Your task to perform on an android device: add a contact in the contacts app Image 0: 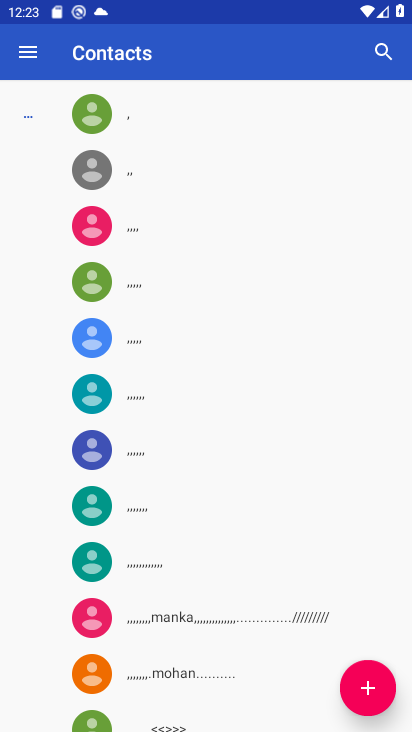
Step 0: click (350, 690)
Your task to perform on an android device: add a contact in the contacts app Image 1: 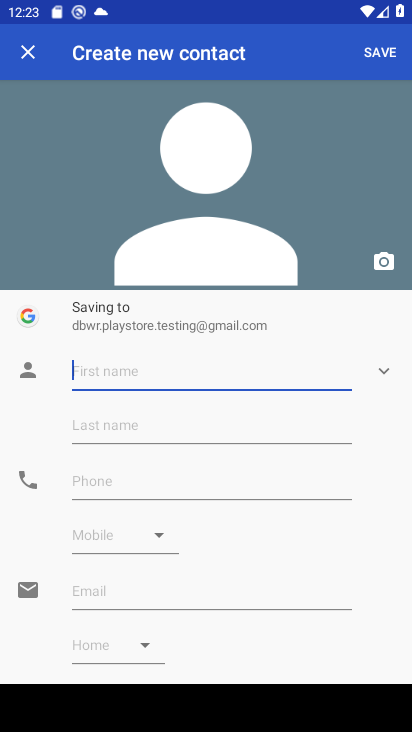
Step 1: type "sbdsjnj"
Your task to perform on an android device: add a contact in the contacts app Image 2: 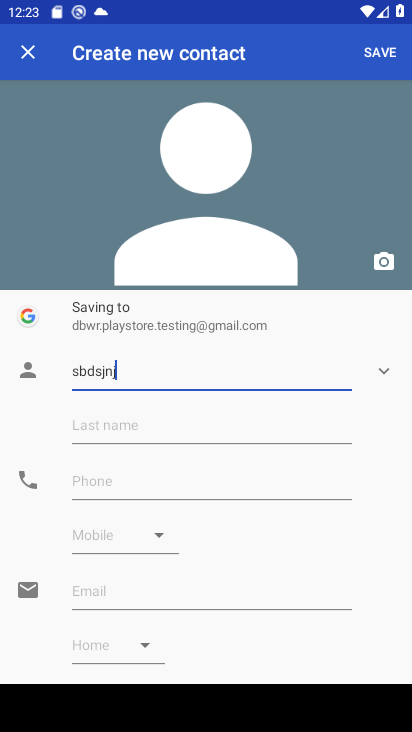
Step 2: click (171, 422)
Your task to perform on an android device: add a contact in the contacts app Image 3: 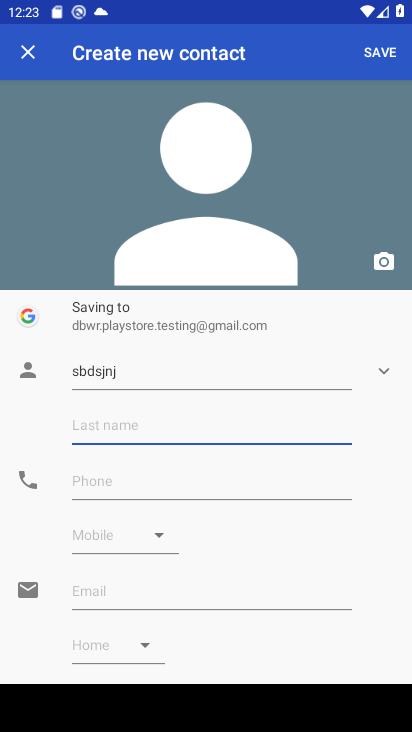
Step 3: type "ufhjkbhbhdsc"
Your task to perform on an android device: add a contact in the contacts app Image 4: 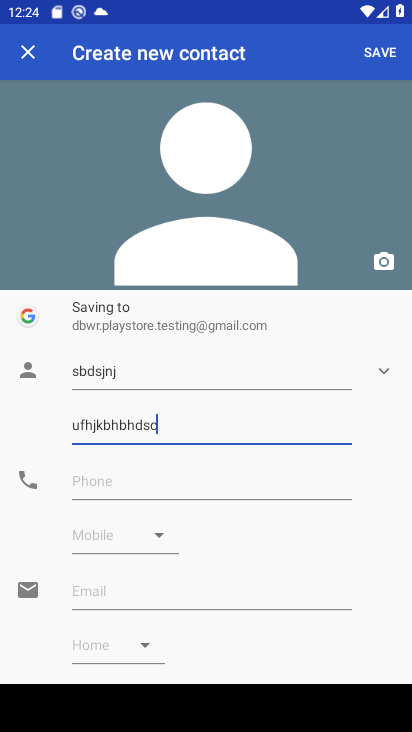
Step 4: click (71, 476)
Your task to perform on an android device: add a contact in the contacts app Image 5: 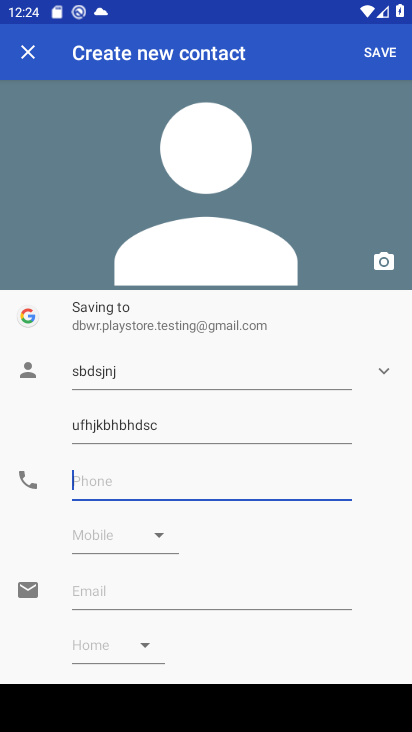
Step 5: click (143, 487)
Your task to perform on an android device: add a contact in the contacts app Image 6: 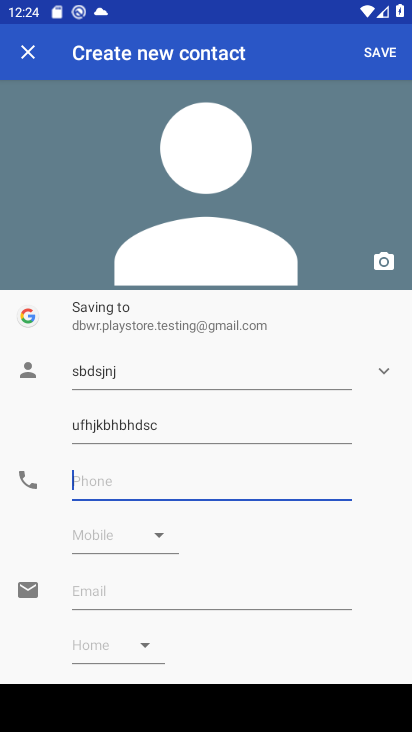
Step 6: type "8238657632757"
Your task to perform on an android device: add a contact in the contacts app Image 7: 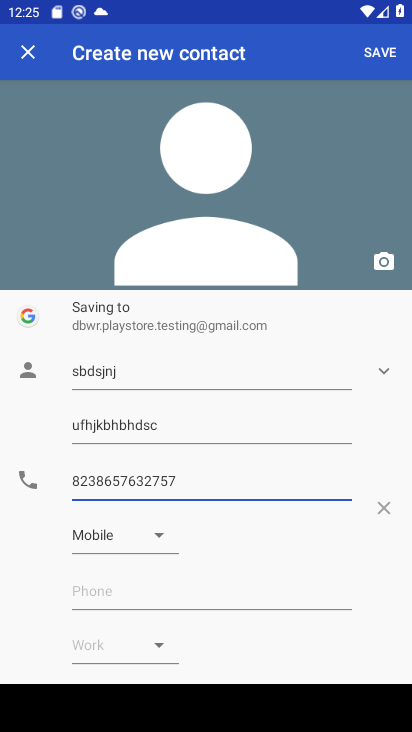
Step 7: click (381, 51)
Your task to perform on an android device: add a contact in the contacts app Image 8: 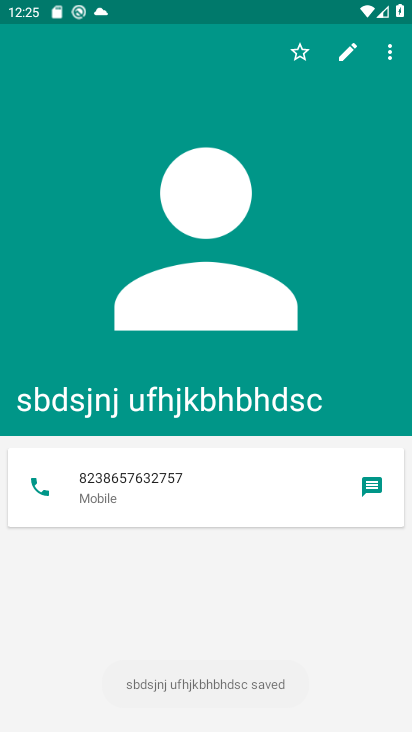
Step 8: task complete